Your task to perform on an android device: Open wifi settings Image 0: 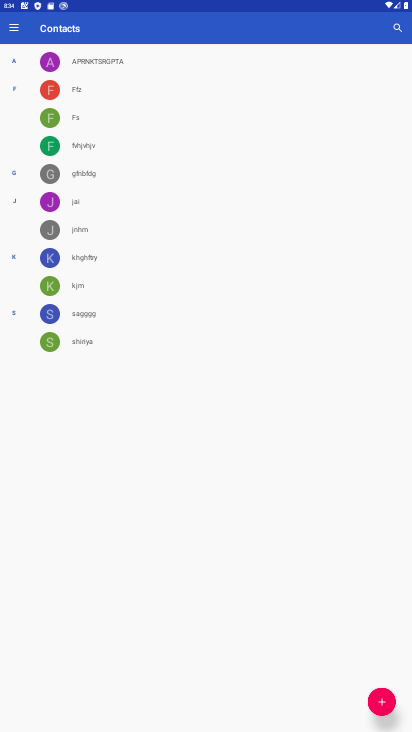
Step 0: press home button
Your task to perform on an android device: Open wifi settings Image 1: 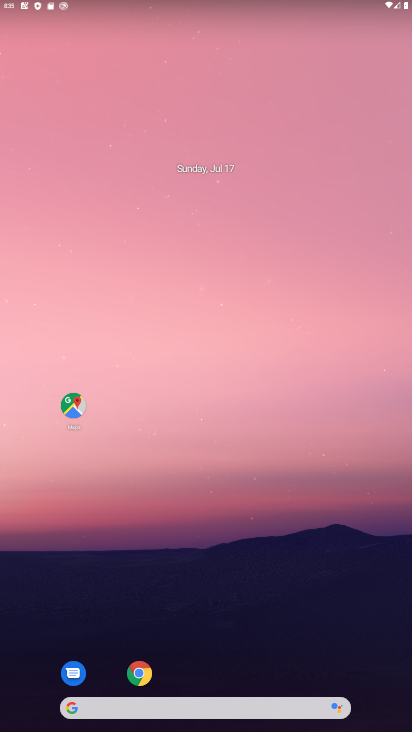
Step 1: drag from (320, 536) to (181, 64)
Your task to perform on an android device: Open wifi settings Image 2: 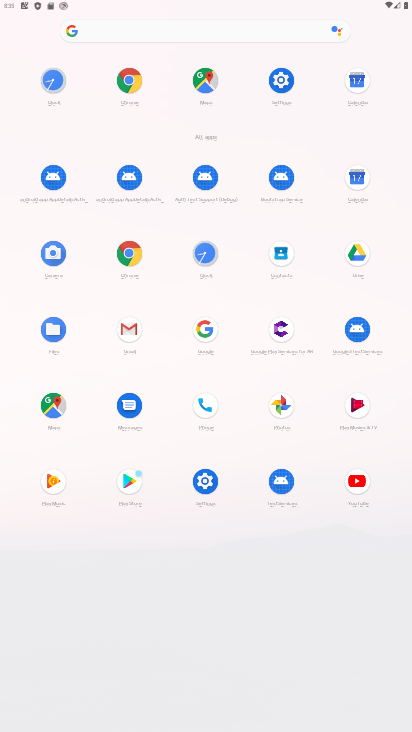
Step 2: click (269, 83)
Your task to perform on an android device: Open wifi settings Image 3: 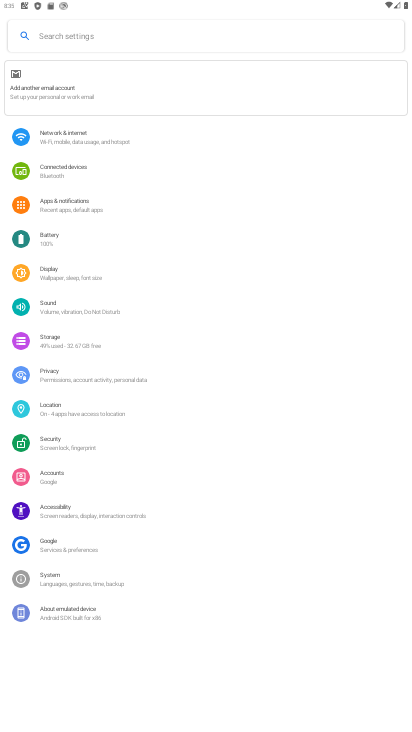
Step 3: click (78, 137)
Your task to perform on an android device: Open wifi settings Image 4: 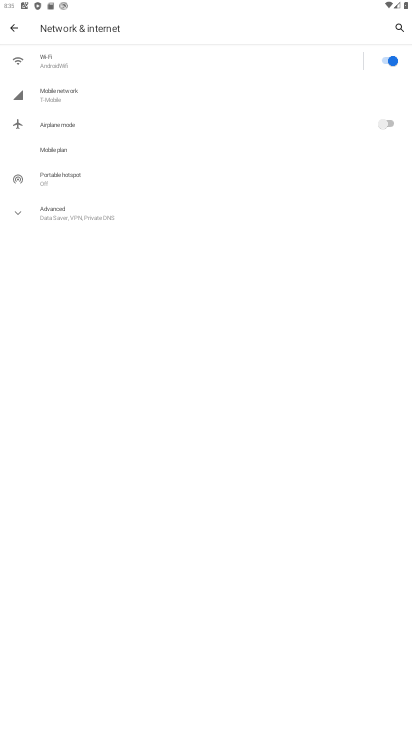
Step 4: click (70, 55)
Your task to perform on an android device: Open wifi settings Image 5: 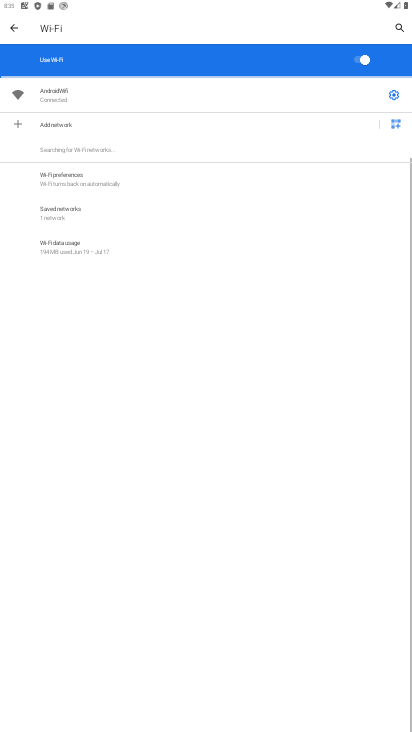
Step 5: click (400, 87)
Your task to perform on an android device: Open wifi settings Image 6: 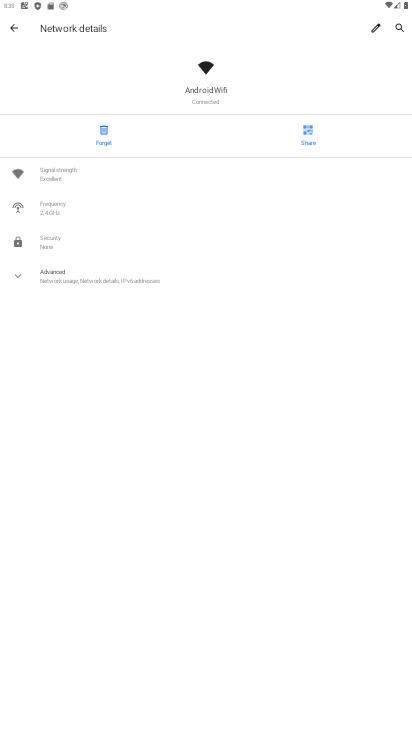
Step 6: task complete